Your task to perform on an android device: What's on my calendar tomorrow? Image 0: 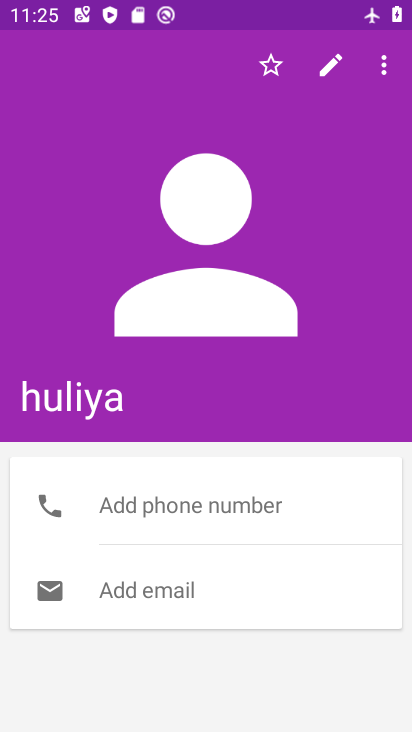
Step 0: press home button
Your task to perform on an android device: What's on my calendar tomorrow? Image 1: 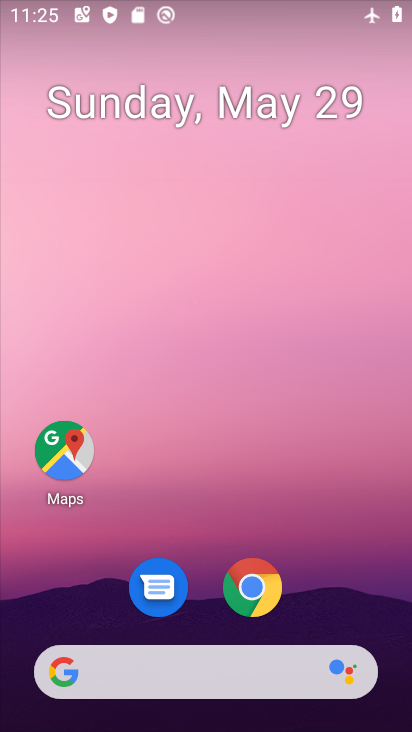
Step 1: drag from (327, 496) to (307, 108)
Your task to perform on an android device: What's on my calendar tomorrow? Image 2: 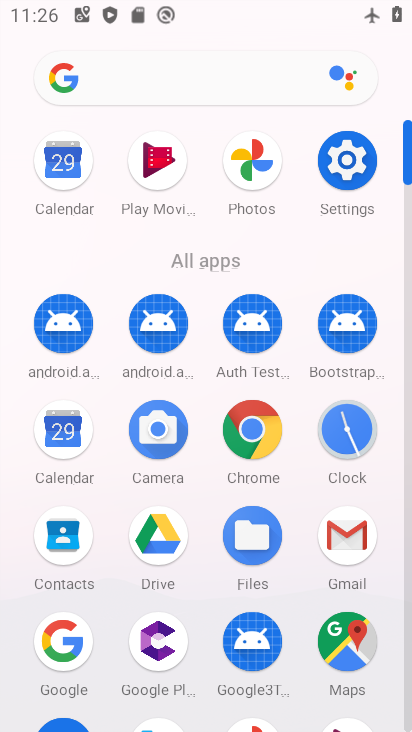
Step 2: click (65, 163)
Your task to perform on an android device: What's on my calendar tomorrow? Image 3: 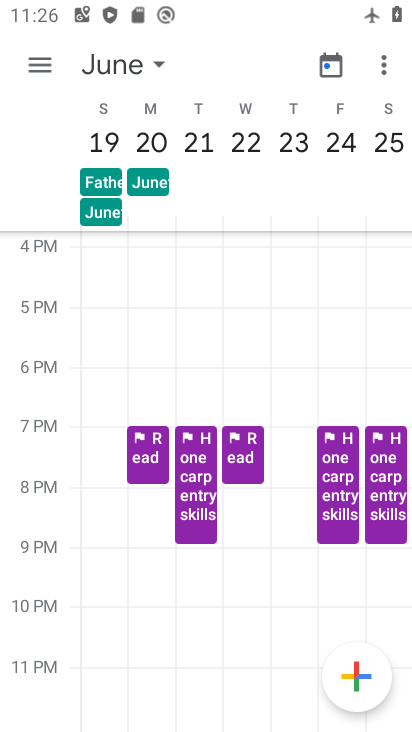
Step 3: click (93, 60)
Your task to perform on an android device: What's on my calendar tomorrow? Image 4: 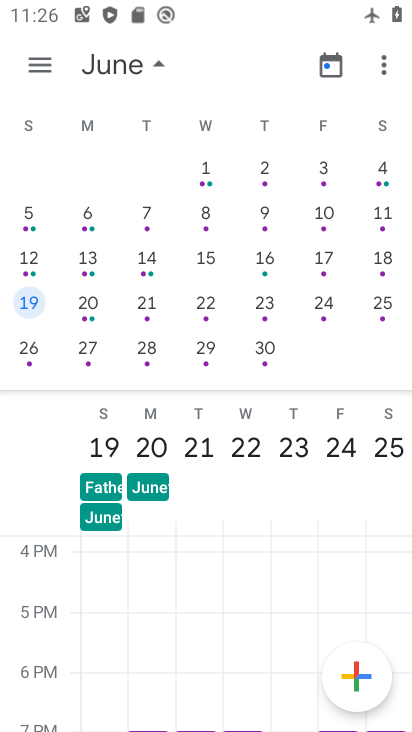
Step 4: drag from (19, 282) to (393, 265)
Your task to perform on an android device: What's on my calendar tomorrow? Image 5: 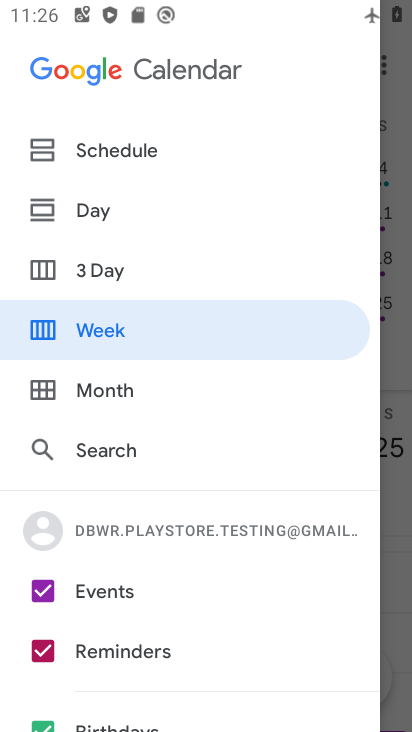
Step 5: click (394, 297)
Your task to perform on an android device: What's on my calendar tomorrow? Image 6: 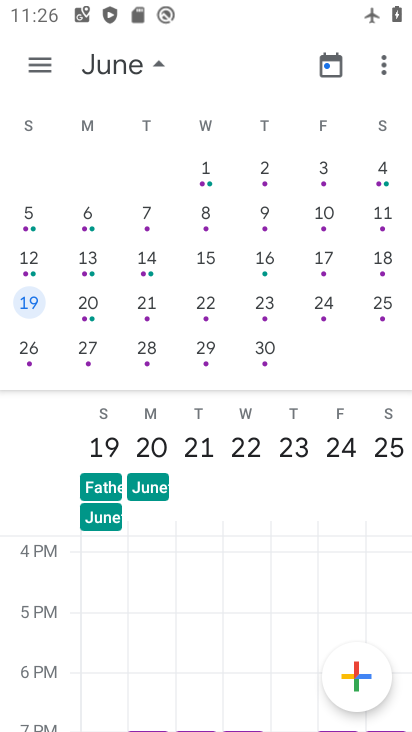
Step 6: drag from (39, 274) to (350, 264)
Your task to perform on an android device: What's on my calendar tomorrow? Image 7: 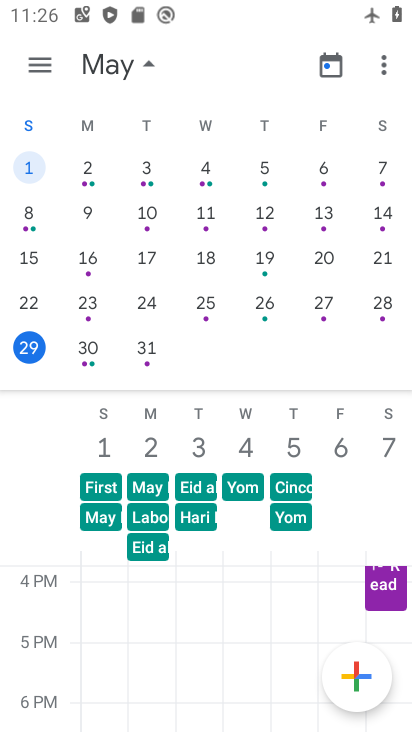
Step 7: click (40, 344)
Your task to perform on an android device: What's on my calendar tomorrow? Image 8: 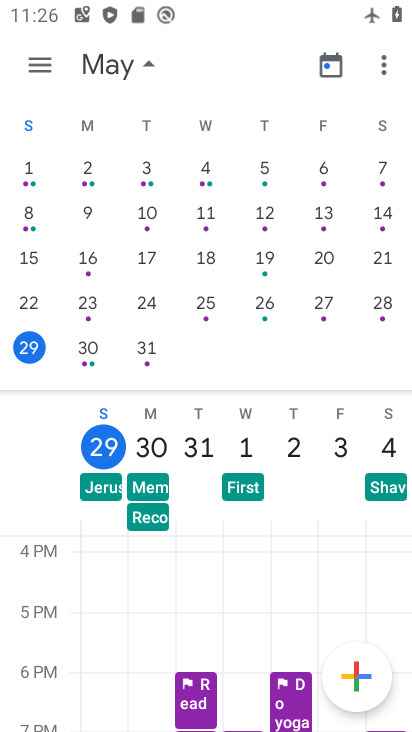
Step 8: drag from (268, 468) to (322, 51)
Your task to perform on an android device: What's on my calendar tomorrow? Image 9: 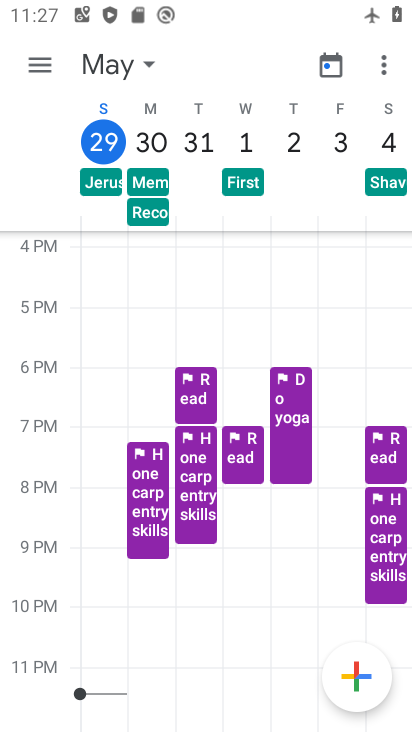
Step 9: click (162, 139)
Your task to perform on an android device: What's on my calendar tomorrow? Image 10: 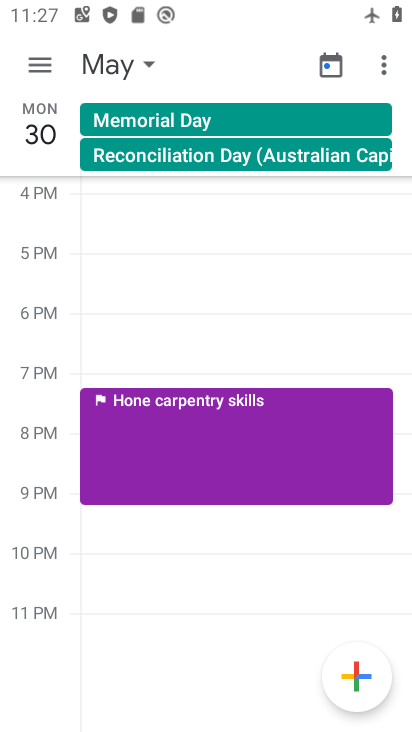
Step 10: task complete